Your task to perform on an android device: Open notification settings Image 0: 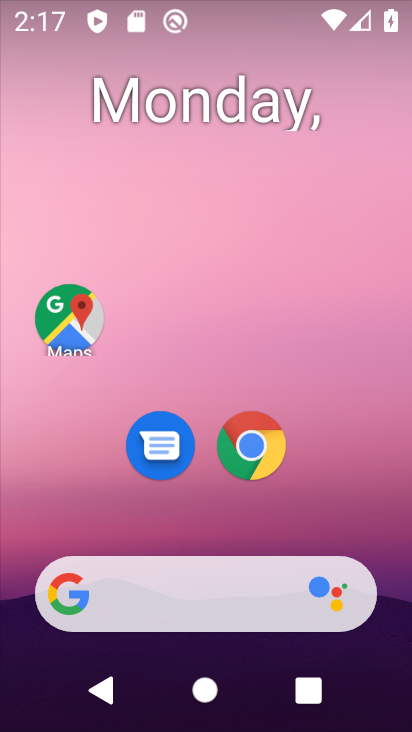
Step 0: drag from (348, 516) to (254, 2)
Your task to perform on an android device: Open notification settings Image 1: 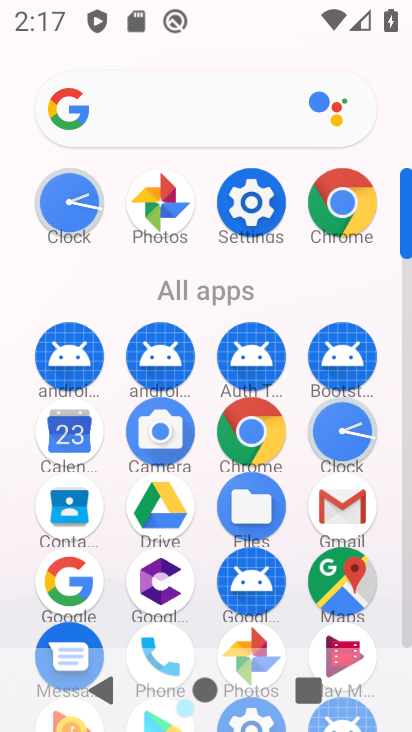
Step 1: drag from (6, 607) to (22, 274)
Your task to perform on an android device: Open notification settings Image 2: 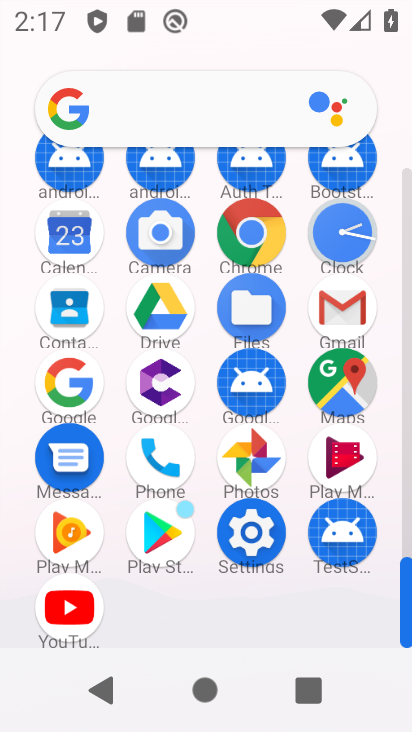
Step 2: click (252, 530)
Your task to perform on an android device: Open notification settings Image 3: 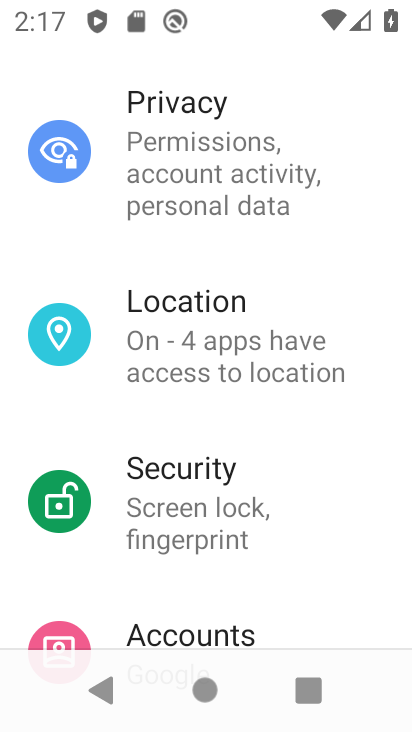
Step 3: drag from (320, 142) to (251, 565)
Your task to perform on an android device: Open notification settings Image 4: 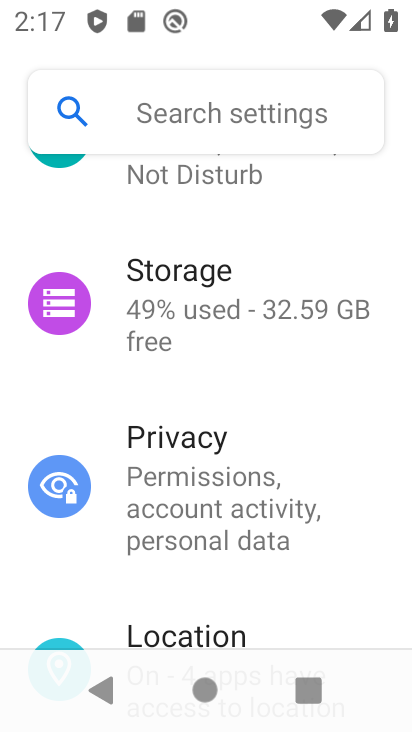
Step 4: drag from (303, 213) to (264, 586)
Your task to perform on an android device: Open notification settings Image 5: 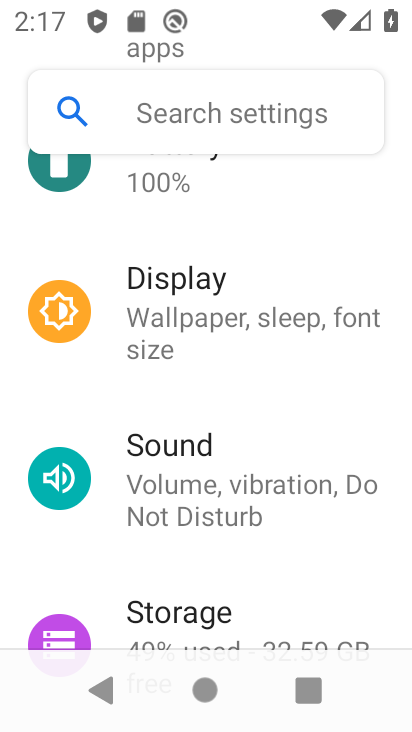
Step 5: drag from (292, 251) to (292, 563)
Your task to perform on an android device: Open notification settings Image 6: 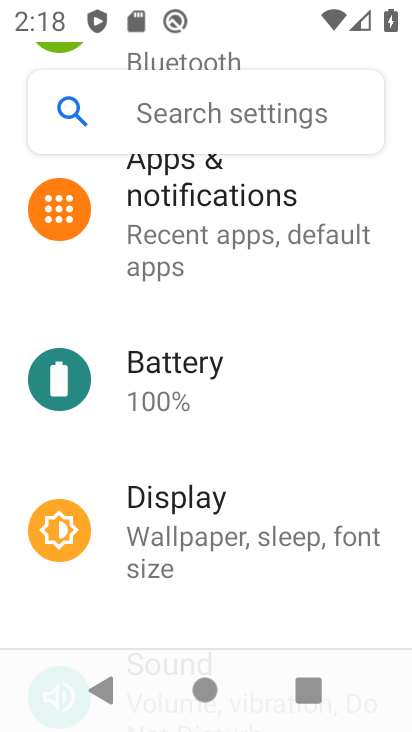
Step 6: click (240, 217)
Your task to perform on an android device: Open notification settings Image 7: 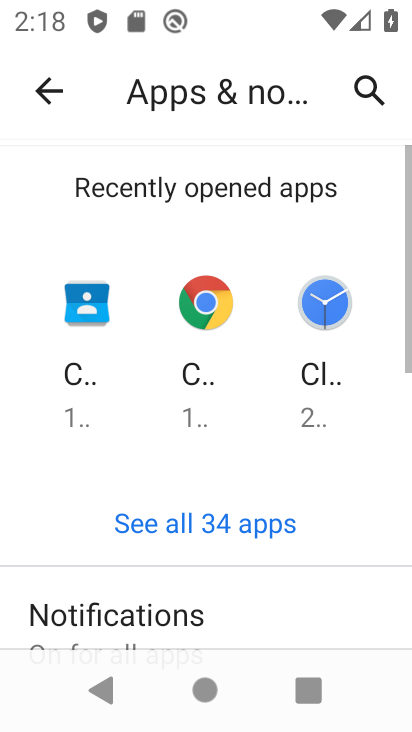
Step 7: drag from (270, 535) to (289, 176)
Your task to perform on an android device: Open notification settings Image 8: 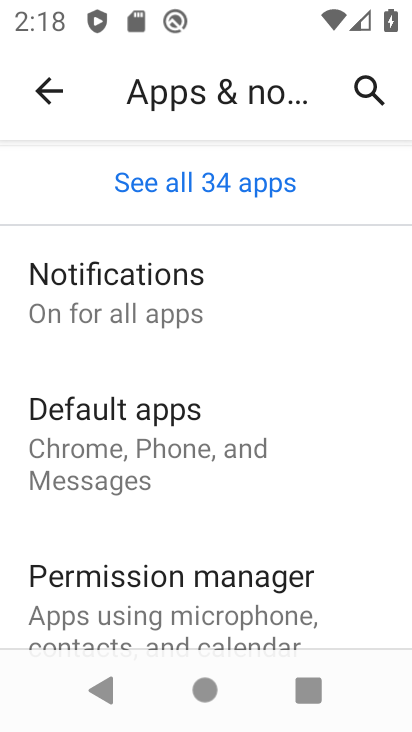
Step 8: click (206, 311)
Your task to perform on an android device: Open notification settings Image 9: 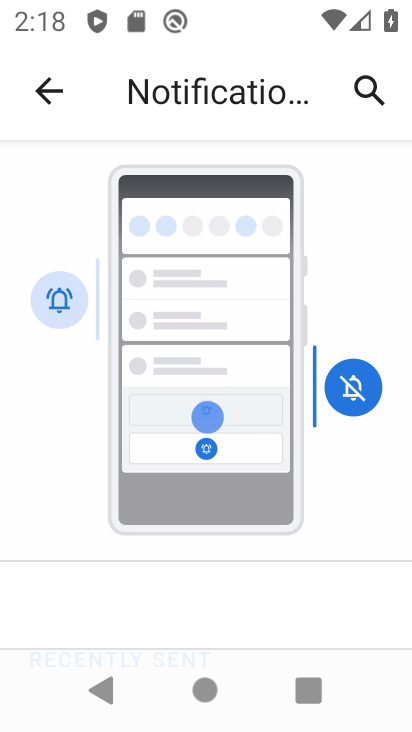
Step 9: drag from (142, 558) to (182, 153)
Your task to perform on an android device: Open notification settings Image 10: 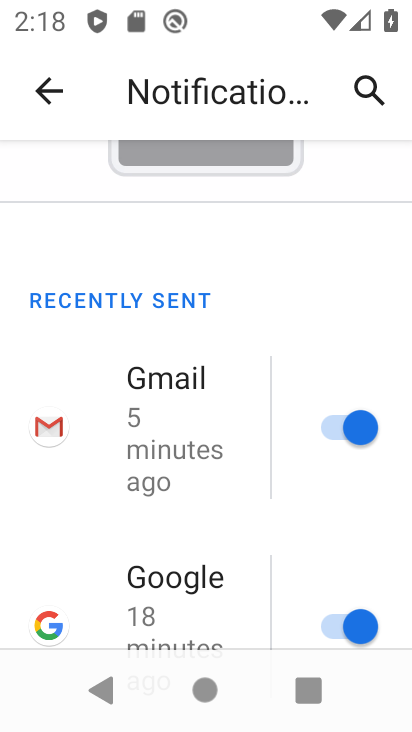
Step 10: drag from (121, 543) to (176, 161)
Your task to perform on an android device: Open notification settings Image 11: 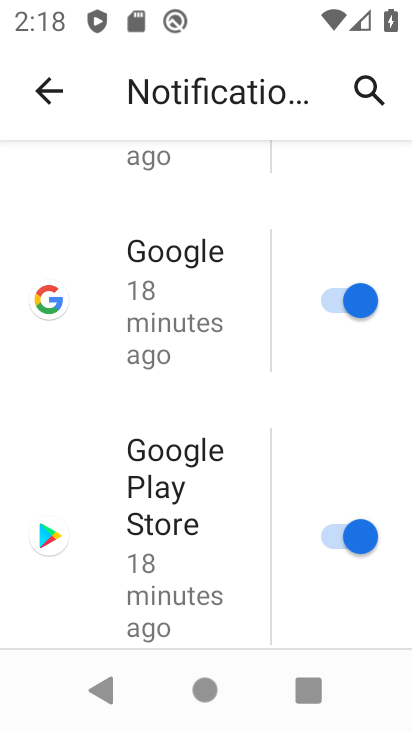
Step 11: drag from (148, 558) to (182, 164)
Your task to perform on an android device: Open notification settings Image 12: 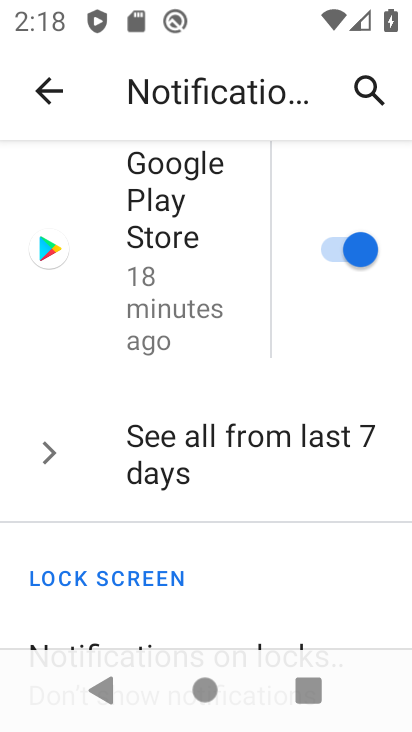
Step 12: drag from (168, 573) to (202, 154)
Your task to perform on an android device: Open notification settings Image 13: 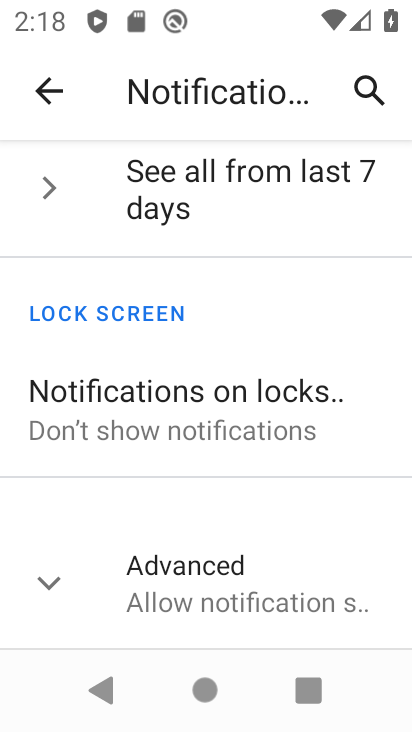
Step 13: drag from (155, 555) to (176, 239)
Your task to perform on an android device: Open notification settings Image 14: 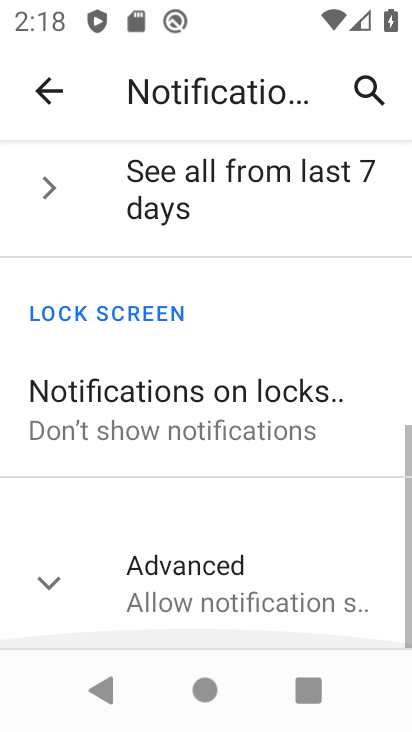
Step 14: click (35, 599)
Your task to perform on an android device: Open notification settings Image 15: 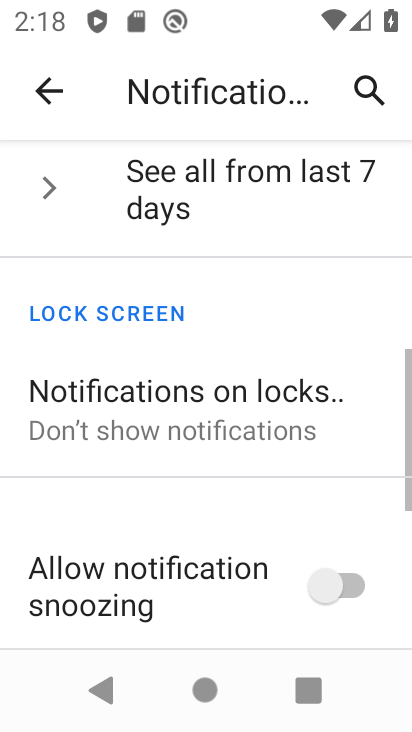
Step 15: task complete